Your task to perform on an android device: Go to calendar. Show me events next week Image 0: 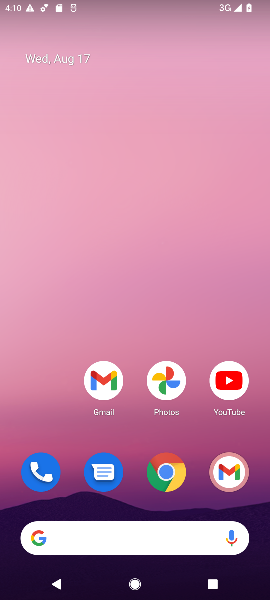
Step 0: drag from (115, 511) to (131, 294)
Your task to perform on an android device: Go to calendar. Show me events next week Image 1: 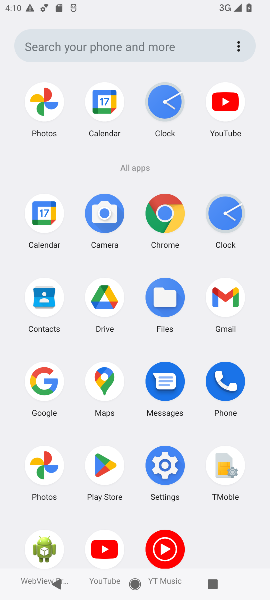
Step 1: click (45, 217)
Your task to perform on an android device: Go to calendar. Show me events next week Image 2: 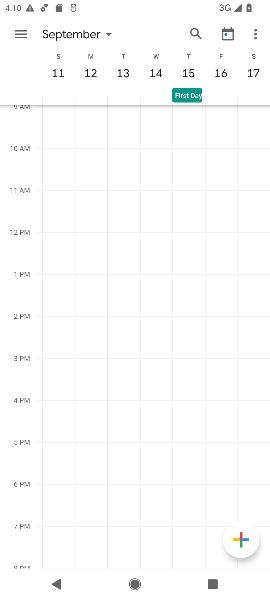
Step 2: click (65, 31)
Your task to perform on an android device: Go to calendar. Show me events next week Image 3: 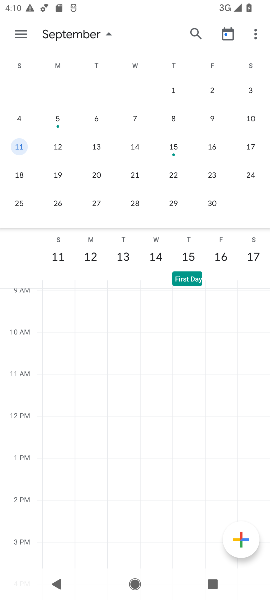
Step 3: drag from (81, 147) to (231, 163)
Your task to perform on an android device: Go to calendar. Show me events next week Image 4: 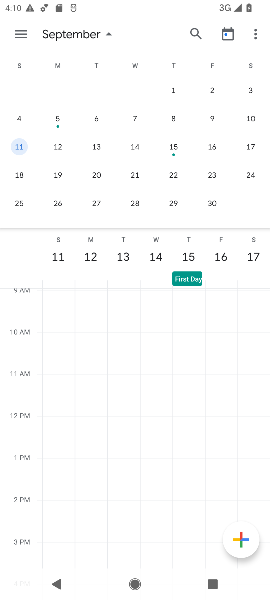
Step 4: drag from (67, 161) to (258, 129)
Your task to perform on an android device: Go to calendar. Show me events next week Image 5: 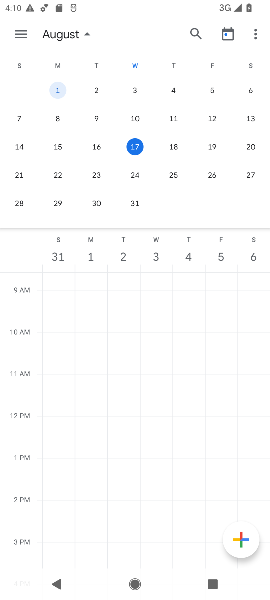
Step 5: click (18, 26)
Your task to perform on an android device: Go to calendar. Show me events next week Image 6: 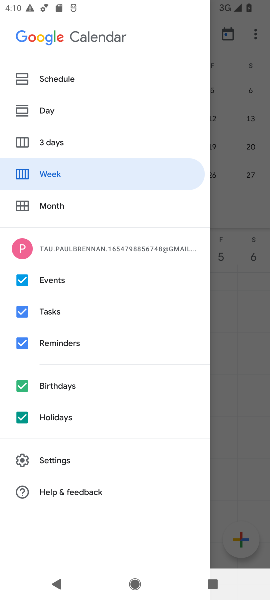
Step 6: click (57, 320)
Your task to perform on an android device: Go to calendar. Show me events next week Image 7: 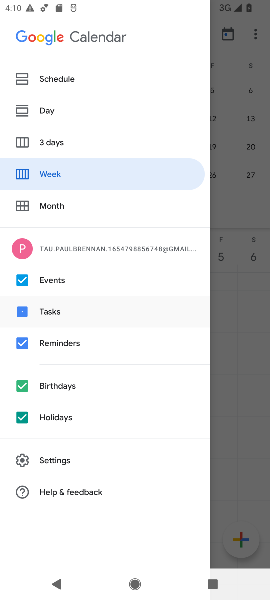
Step 7: click (56, 340)
Your task to perform on an android device: Go to calendar. Show me events next week Image 8: 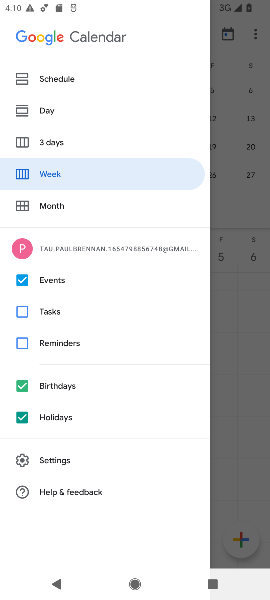
Step 8: click (42, 380)
Your task to perform on an android device: Go to calendar. Show me events next week Image 9: 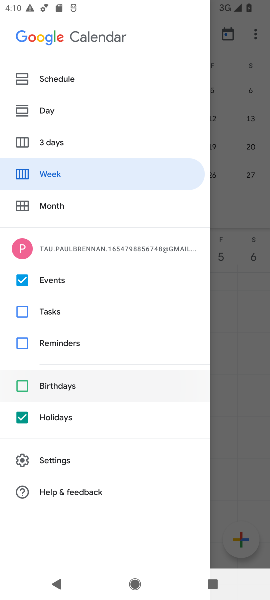
Step 9: click (53, 418)
Your task to perform on an android device: Go to calendar. Show me events next week Image 10: 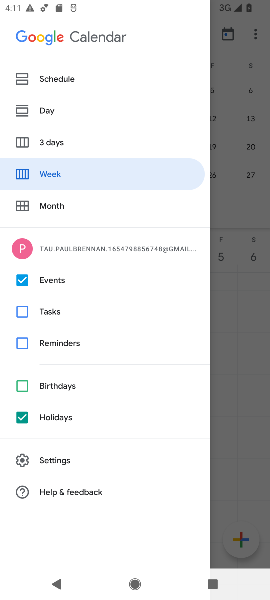
Step 10: click (46, 176)
Your task to perform on an android device: Go to calendar. Show me events next week Image 11: 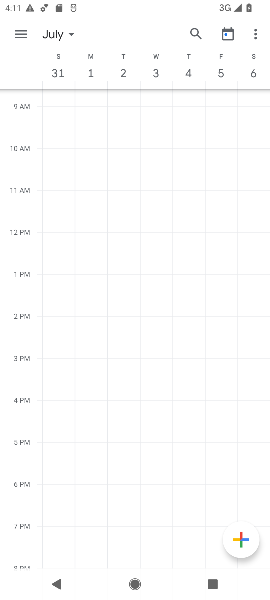
Step 11: task complete